Your task to perform on an android device: change the clock display to analog Image 0: 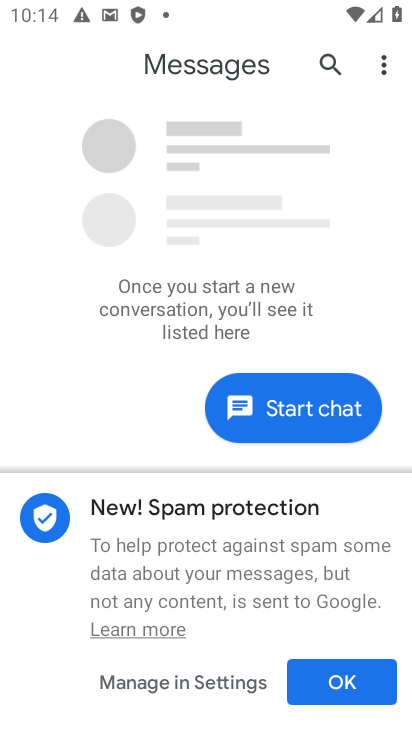
Step 0: press home button
Your task to perform on an android device: change the clock display to analog Image 1: 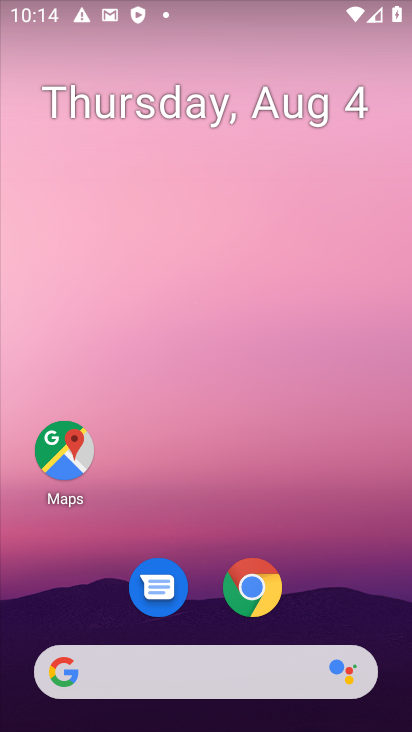
Step 1: drag from (217, 645) to (211, 58)
Your task to perform on an android device: change the clock display to analog Image 2: 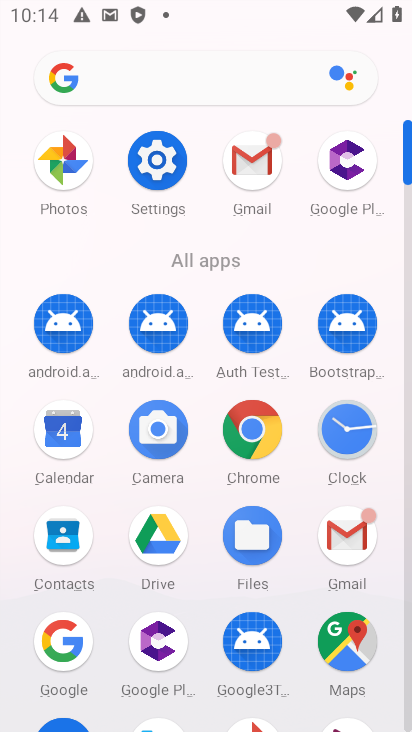
Step 2: click (340, 424)
Your task to perform on an android device: change the clock display to analog Image 3: 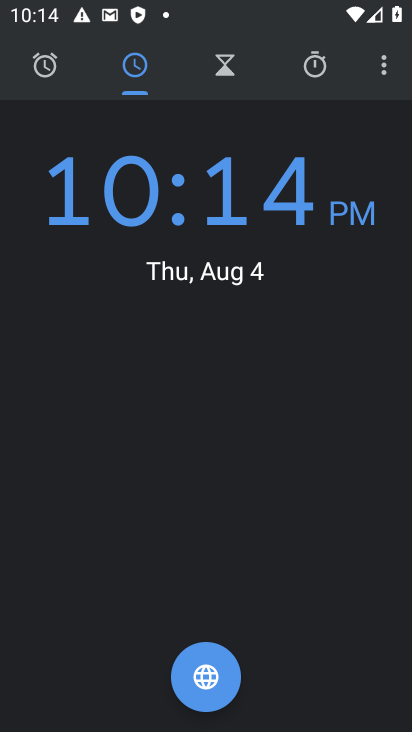
Step 3: click (390, 62)
Your task to perform on an android device: change the clock display to analog Image 4: 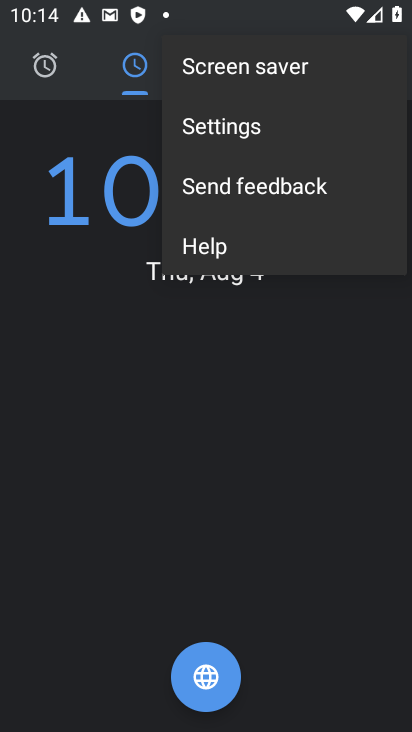
Step 4: click (262, 119)
Your task to perform on an android device: change the clock display to analog Image 5: 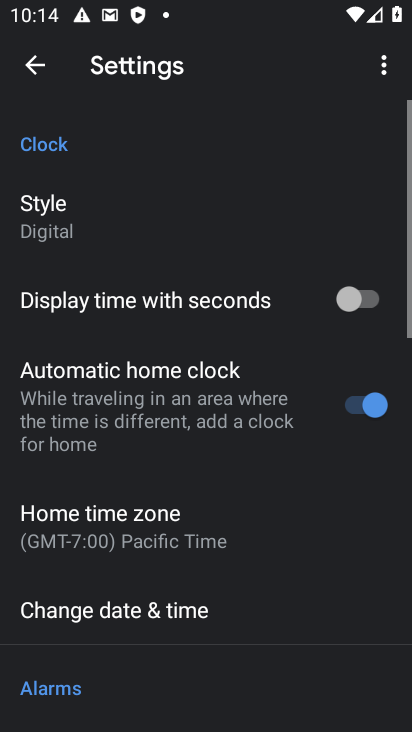
Step 5: click (73, 217)
Your task to perform on an android device: change the clock display to analog Image 6: 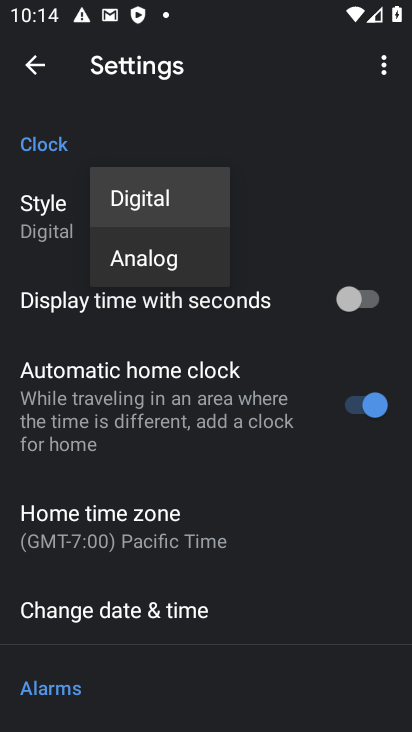
Step 6: click (139, 257)
Your task to perform on an android device: change the clock display to analog Image 7: 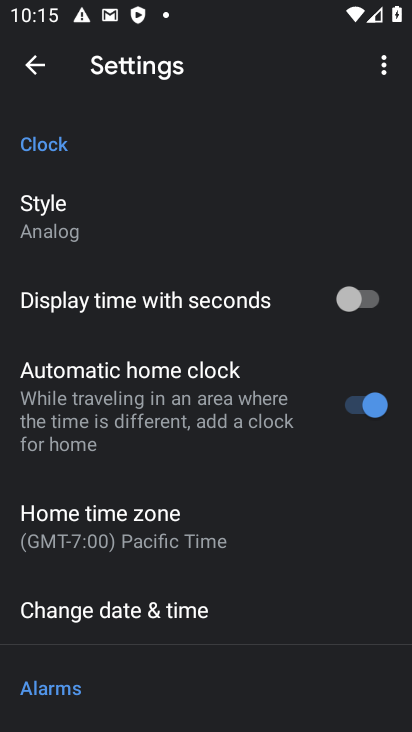
Step 7: task complete